Your task to perform on an android device: remove spam from my inbox in the gmail app Image 0: 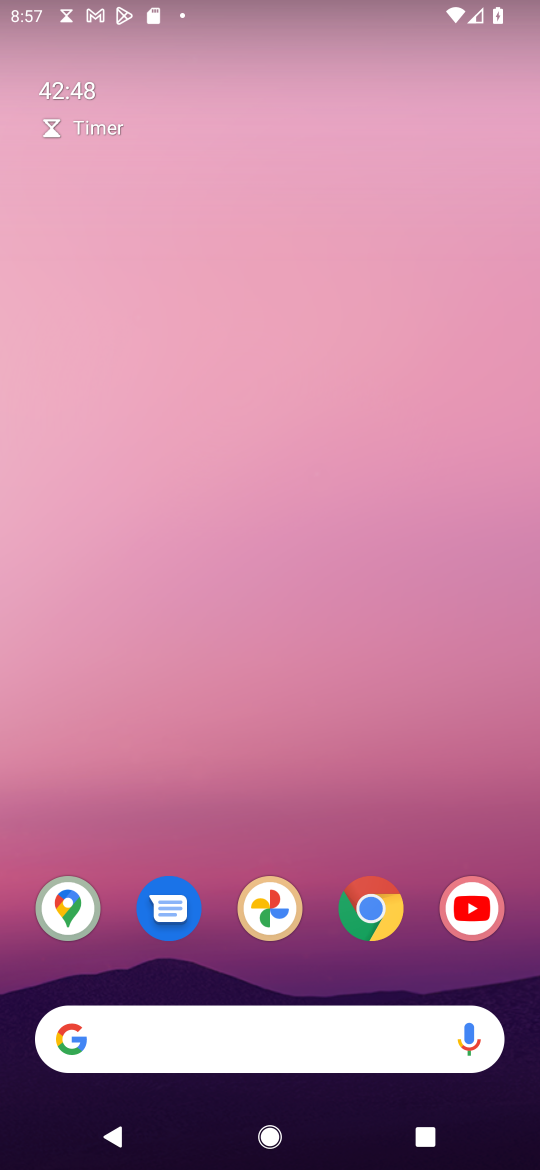
Step 0: drag from (295, 1027) to (228, 274)
Your task to perform on an android device: remove spam from my inbox in the gmail app Image 1: 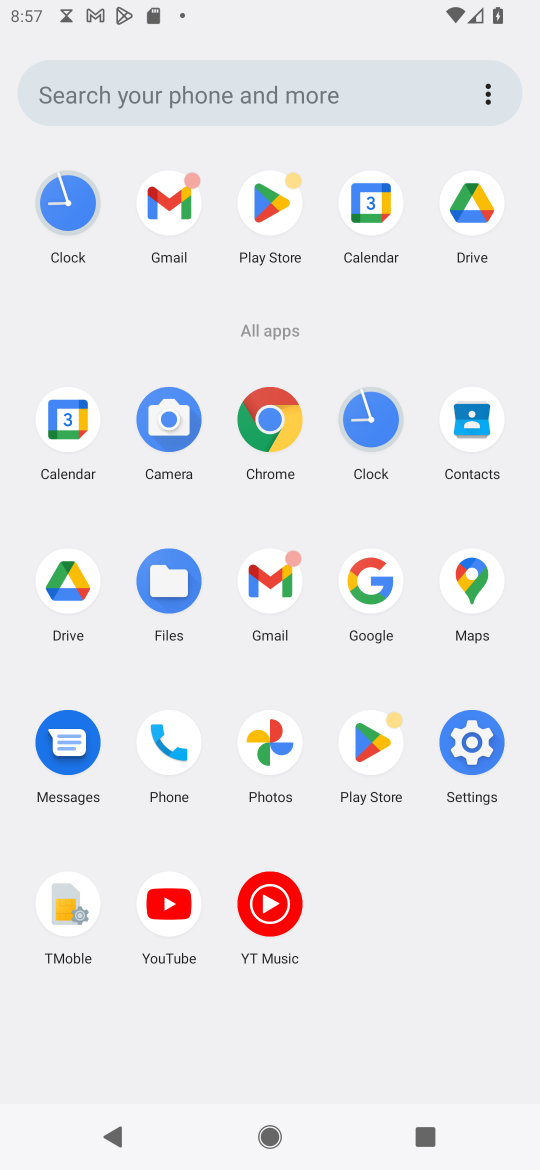
Step 1: click (270, 588)
Your task to perform on an android device: remove spam from my inbox in the gmail app Image 2: 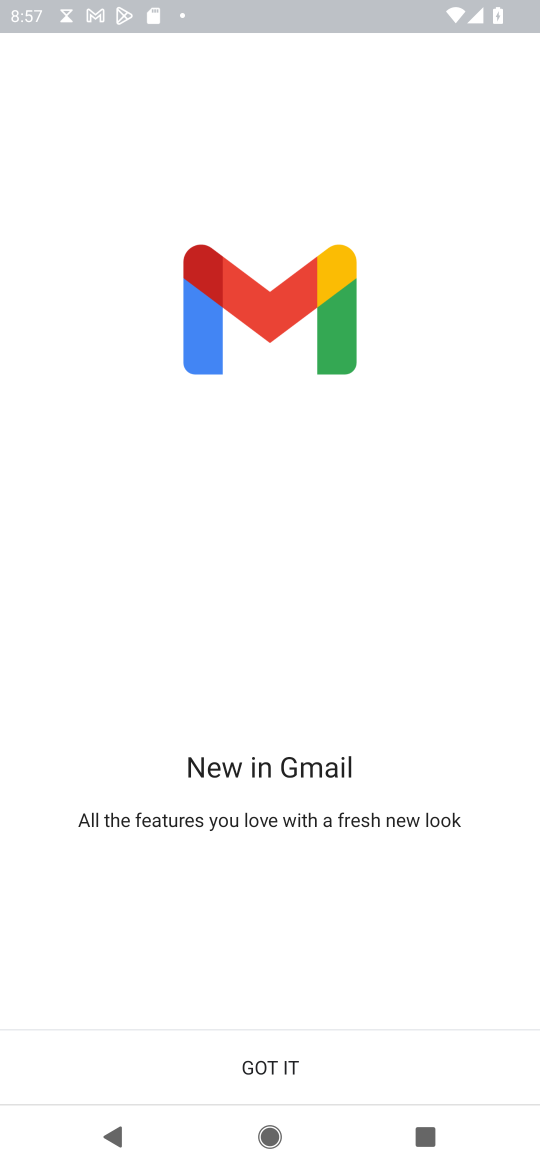
Step 2: click (238, 1068)
Your task to perform on an android device: remove spam from my inbox in the gmail app Image 3: 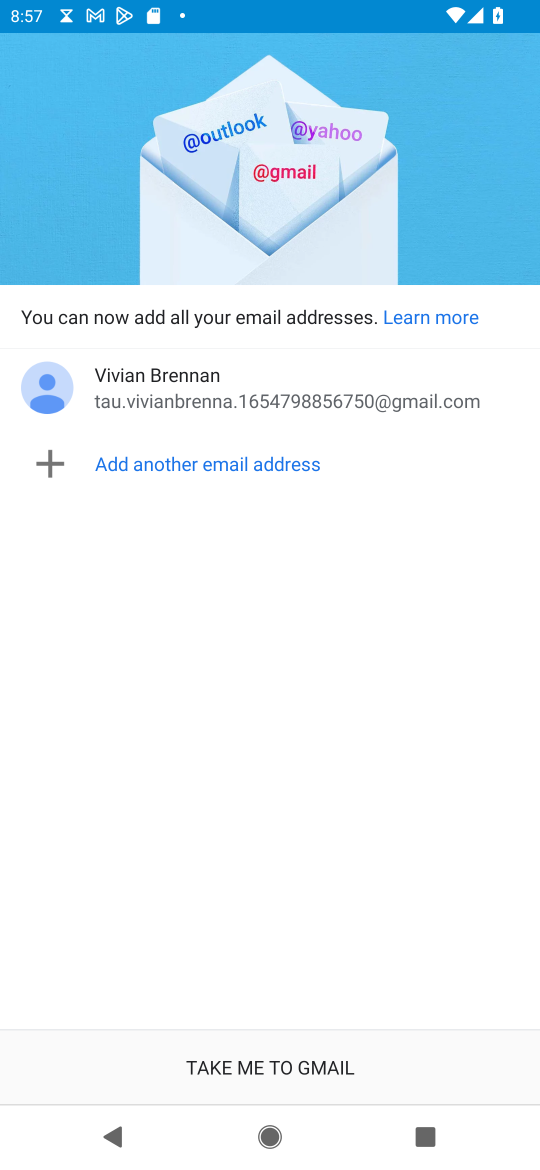
Step 3: click (348, 1058)
Your task to perform on an android device: remove spam from my inbox in the gmail app Image 4: 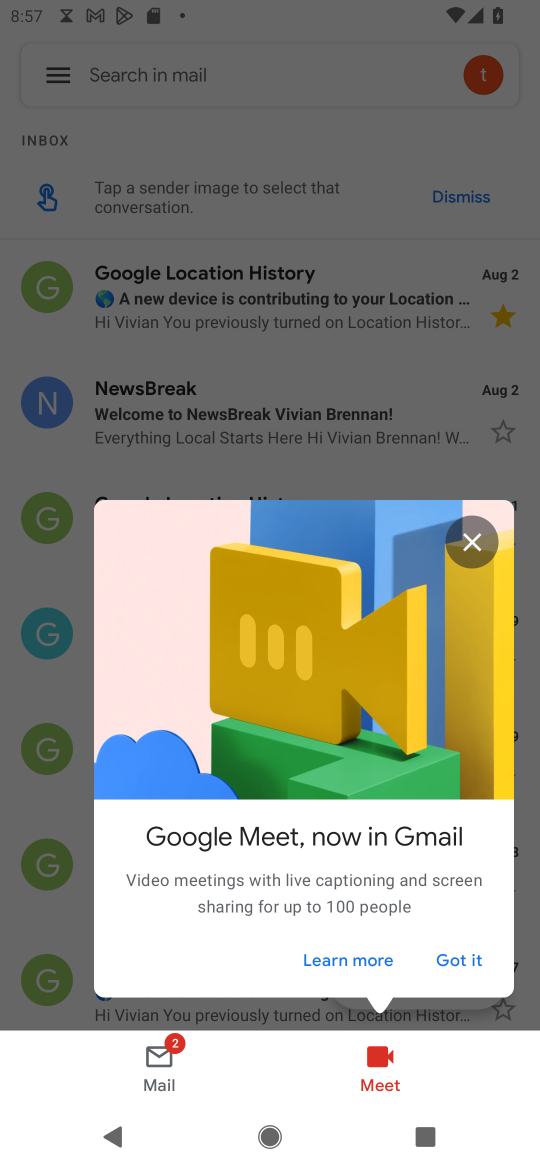
Step 4: click (480, 550)
Your task to perform on an android device: remove spam from my inbox in the gmail app Image 5: 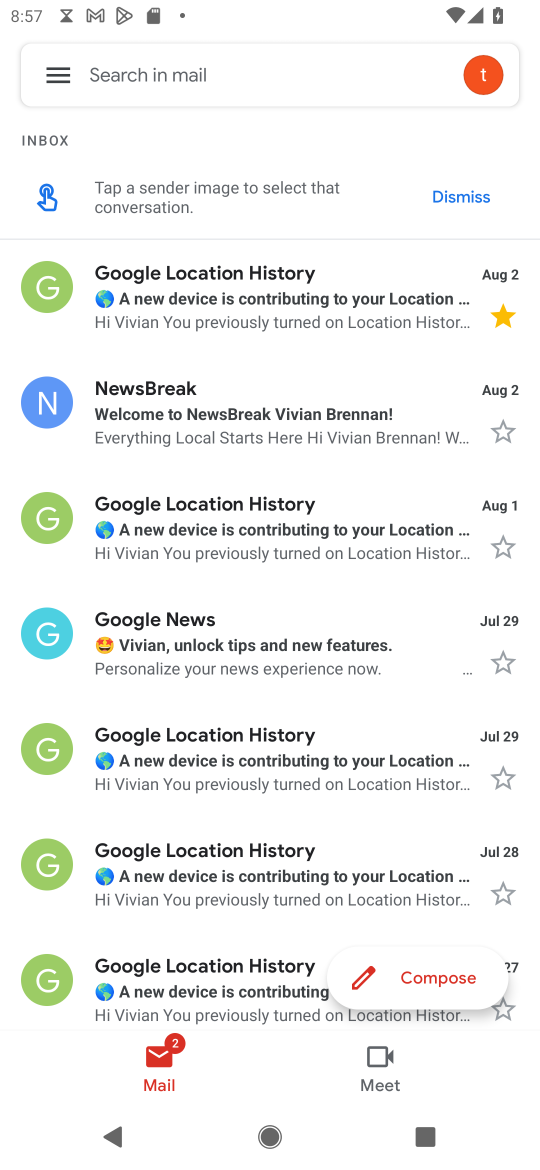
Step 5: click (50, 97)
Your task to perform on an android device: remove spam from my inbox in the gmail app Image 6: 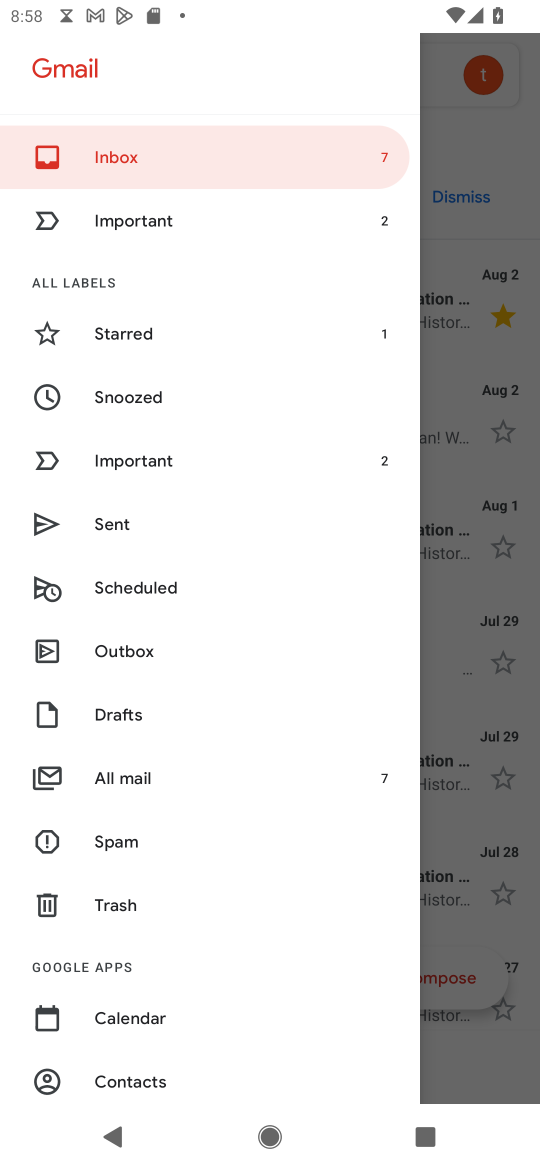
Step 6: click (167, 836)
Your task to perform on an android device: remove spam from my inbox in the gmail app Image 7: 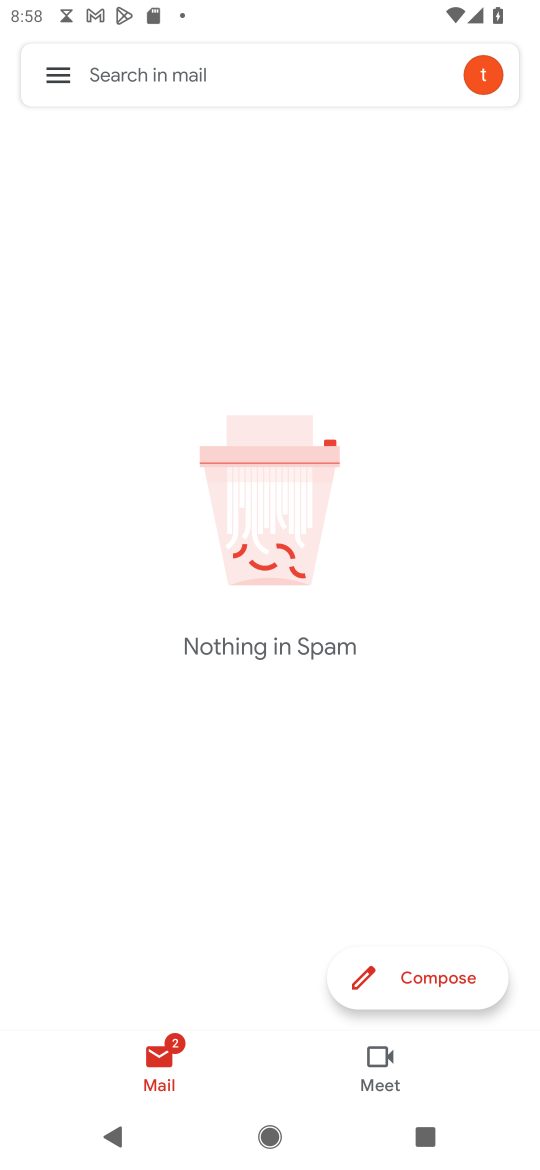
Step 7: task complete